Your task to perform on an android device: Search for Mexican restaurants on Maps Image 0: 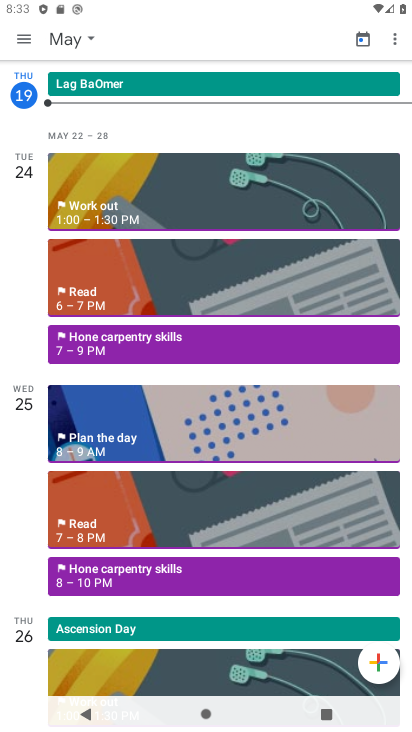
Step 0: press home button
Your task to perform on an android device: Search for Mexican restaurants on Maps Image 1: 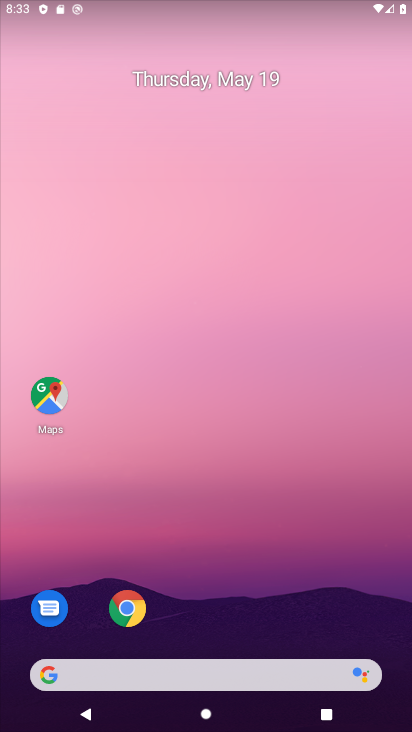
Step 1: click (46, 406)
Your task to perform on an android device: Search for Mexican restaurants on Maps Image 2: 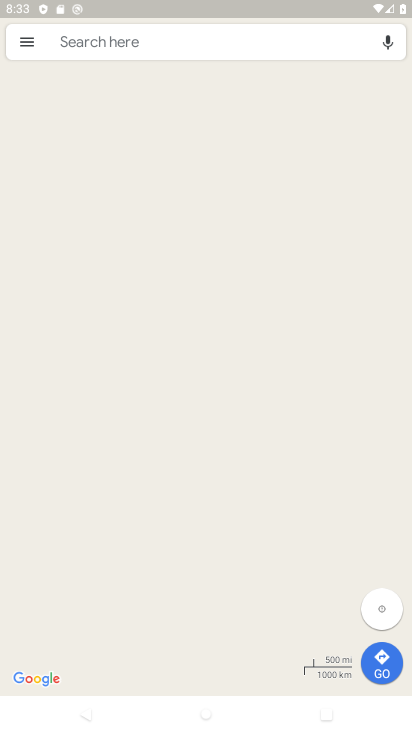
Step 2: click (149, 53)
Your task to perform on an android device: Search for Mexican restaurants on Maps Image 3: 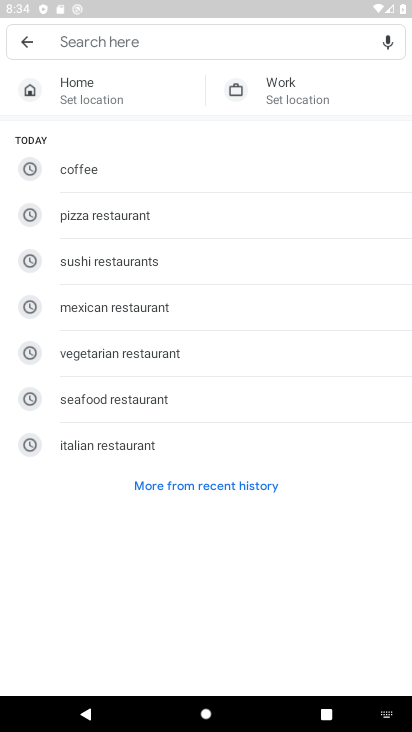
Step 3: type "mexican restaurants"
Your task to perform on an android device: Search for Mexican restaurants on Maps Image 4: 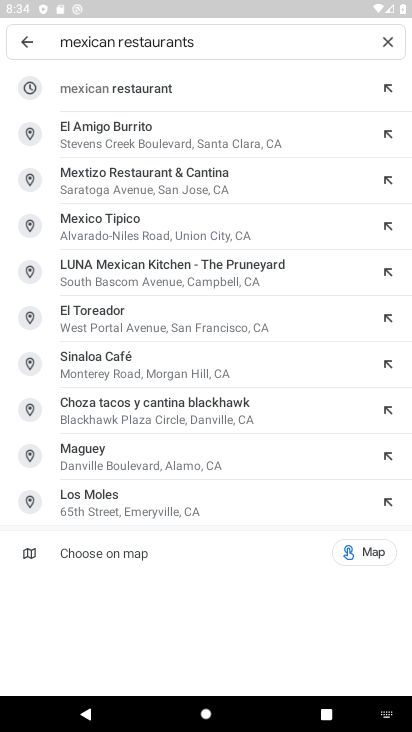
Step 4: click (111, 84)
Your task to perform on an android device: Search for Mexican restaurants on Maps Image 5: 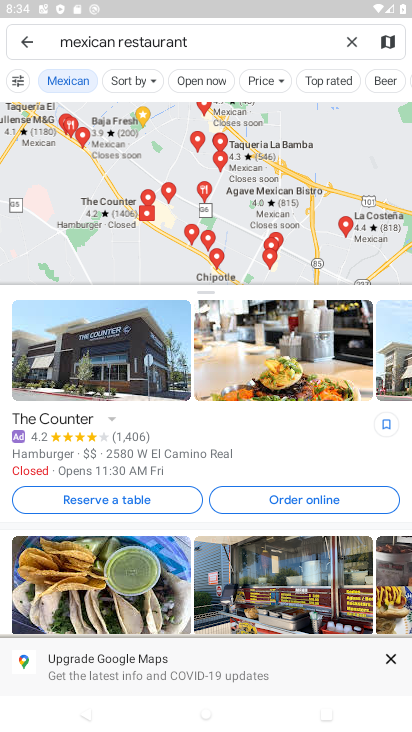
Step 5: task complete